Your task to perform on an android device: Do I have any events tomorrow? Image 0: 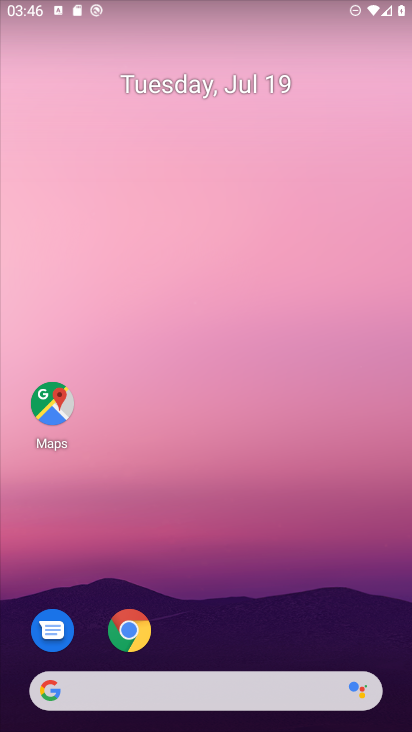
Step 0: drag from (385, 637) to (332, 68)
Your task to perform on an android device: Do I have any events tomorrow? Image 1: 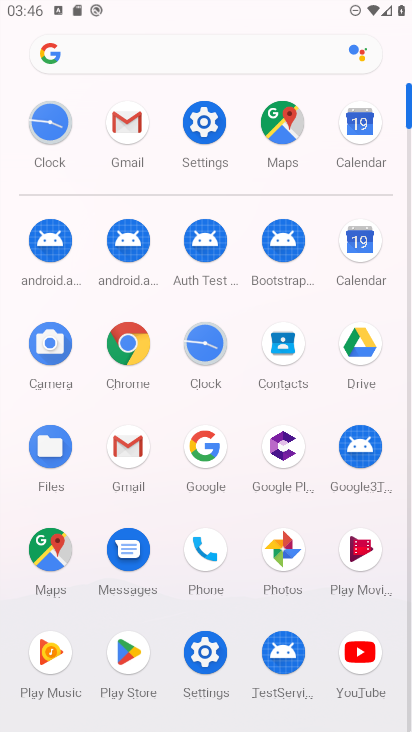
Step 1: click (357, 241)
Your task to perform on an android device: Do I have any events tomorrow? Image 2: 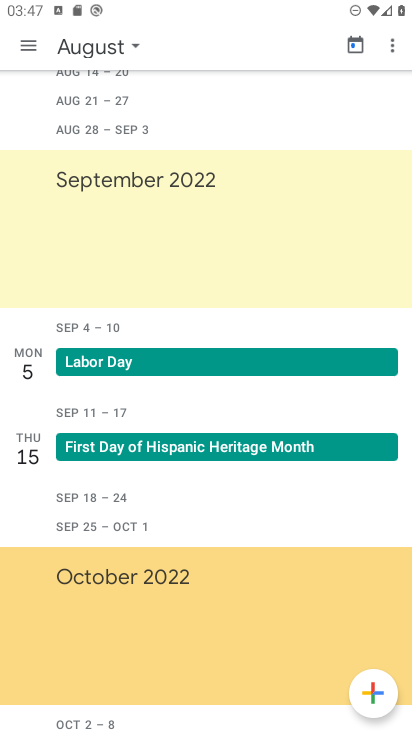
Step 2: click (31, 51)
Your task to perform on an android device: Do I have any events tomorrow? Image 3: 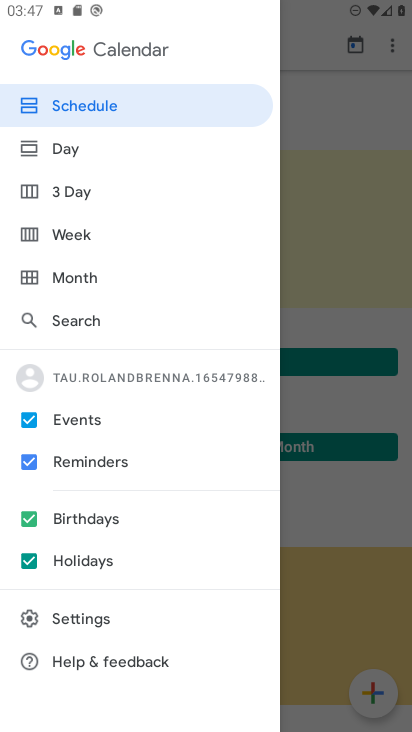
Step 3: click (65, 147)
Your task to perform on an android device: Do I have any events tomorrow? Image 4: 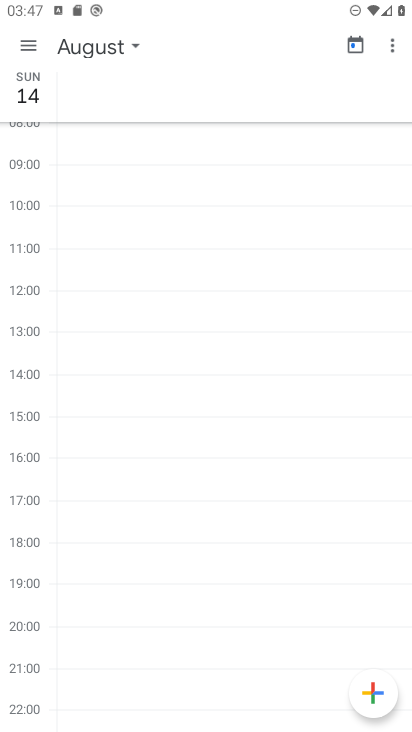
Step 4: click (128, 43)
Your task to perform on an android device: Do I have any events tomorrow? Image 5: 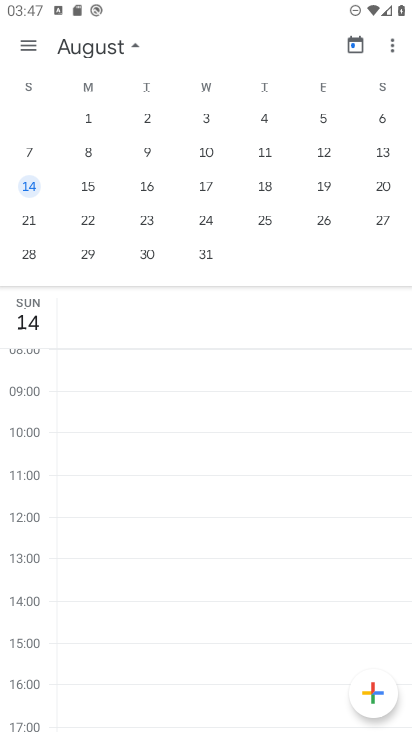
Step 5: drag from (26, 218) to (368, 179)
Your task to perform on an android device: Do I have any events tomorrow? Image 6: 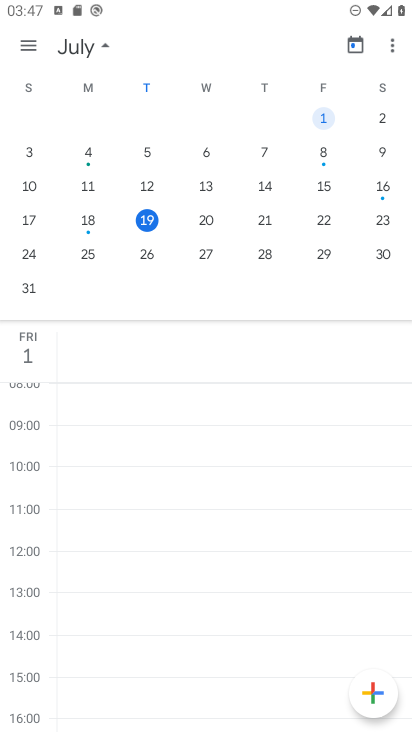
Step 6: click (205, 218)
Your task to perform on an android device: Do I have any events tomorrow? Image 7: 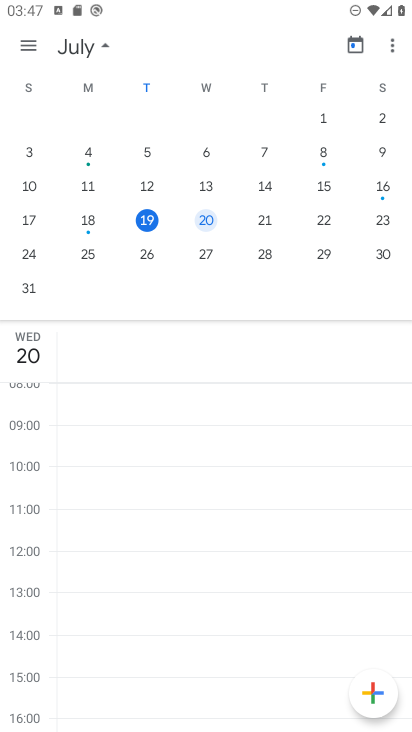
Step 7: task complete